Your task to perform on an android device: Go to accessibility settings Image 0: 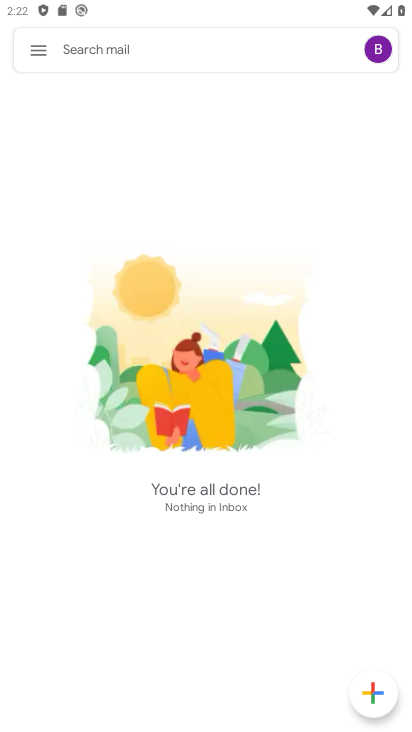
Step 0: press home button
Your task to perform on an android device: Go to accessibility settings Image 1: 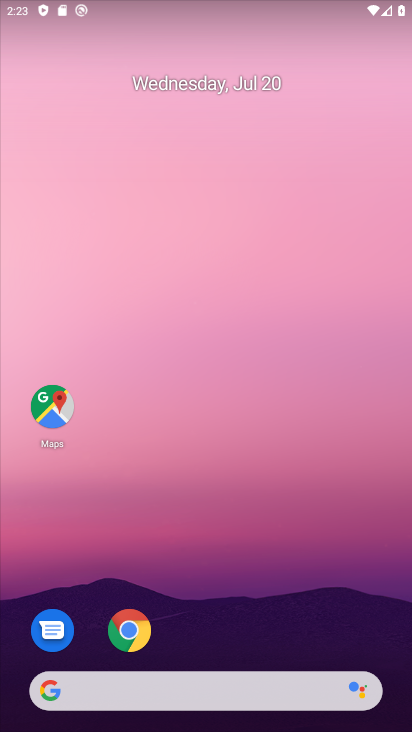
Step 1: drag from (235, 619) to (284, 8)
Your task to perform on an android device: Go to accessibility settings Image 2: 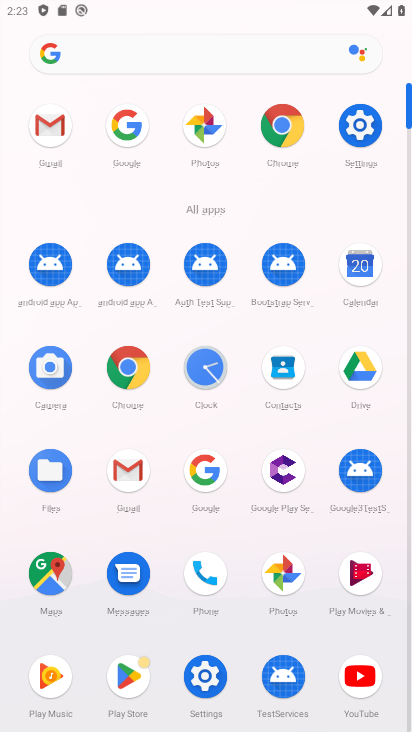
Step 2: click (357, 117)
Your task to perform on an android device: Go to accessibility settings Image 3: 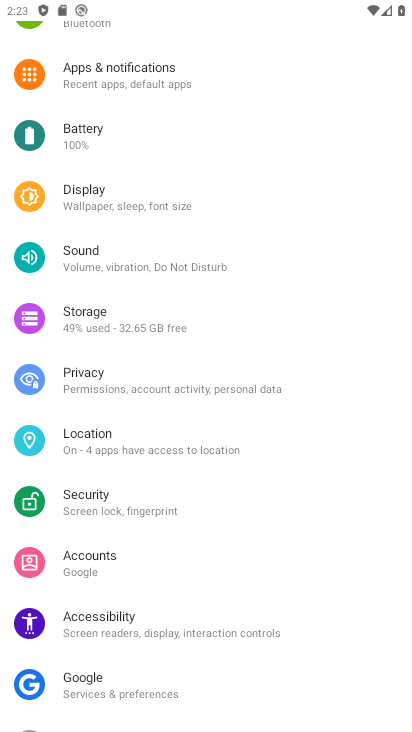
Step 3: click (166, 625)
Your task to perform on an android device: Go to accessibility settings Image 4: 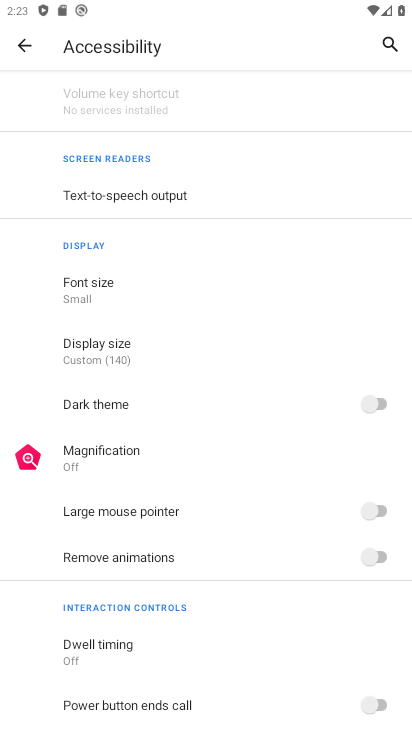
Step 4: task complete